Your task to perform on an android device: turn on translation in the chrome app Image 0: 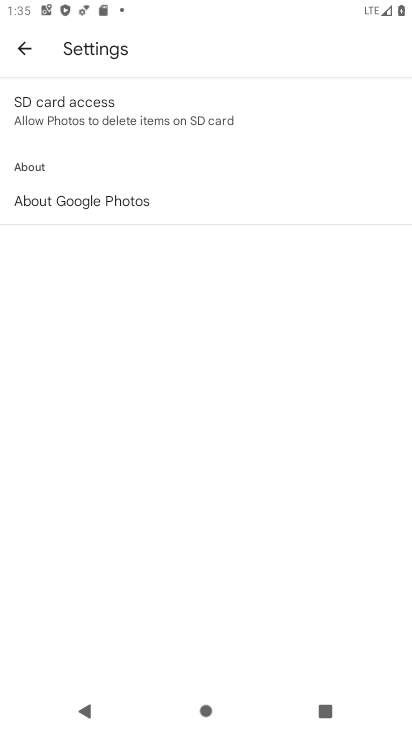
Step 0: press home button
Your task to perform on an android device: turn on translation in the chrome app Image 1: 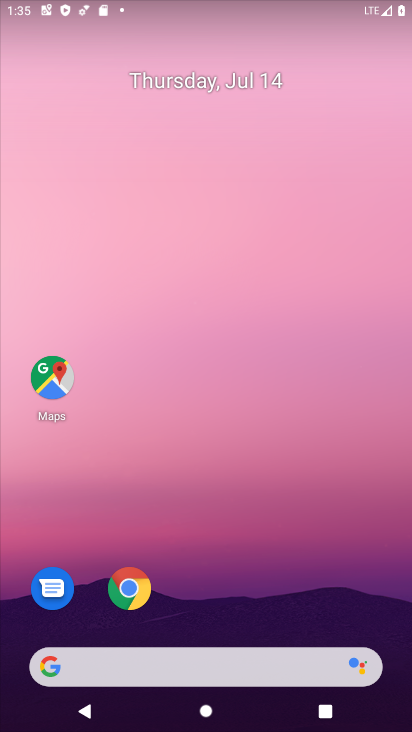
Step 1: click (130, 587)
Your task to perform on an android device: turn on translation in the chrome app Image 2: 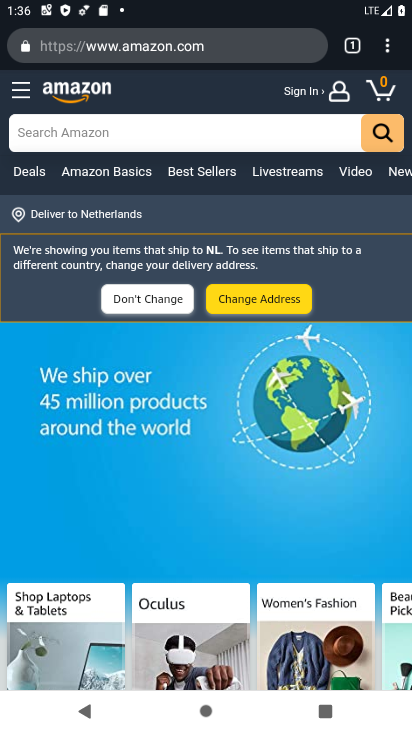
Step 2: click (388, 51)
Your task to perform on an android device: turn on translation in the chrome app Image 3: 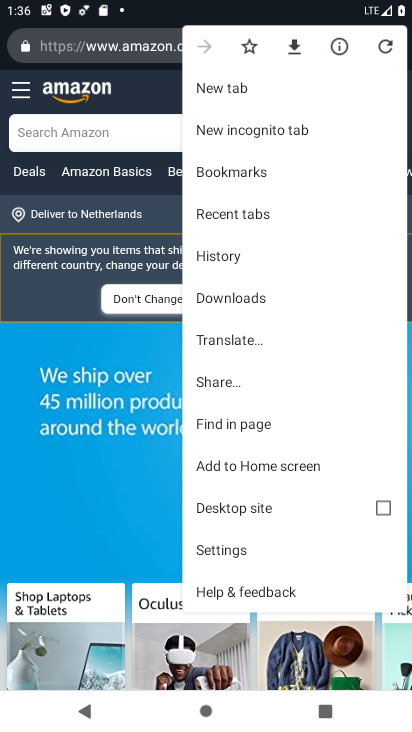
Step 3: click (262, 545)
Your task to perform on an android device: turn on translation in the chrome app Image 4: 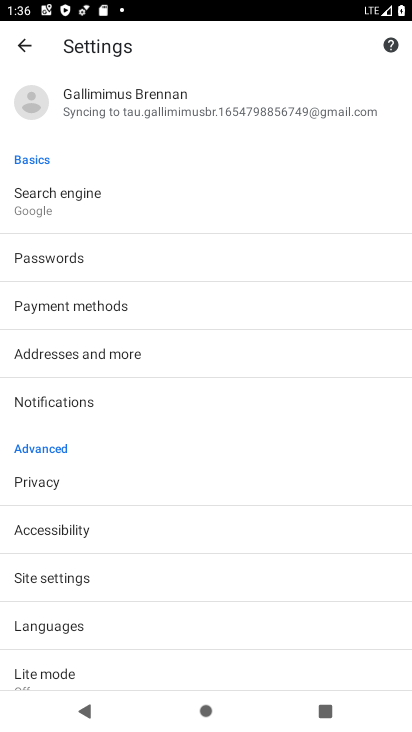
Step 4: click (94, 629)
Your task to perform on an android device: turn on translation in the chrome app Image 5: 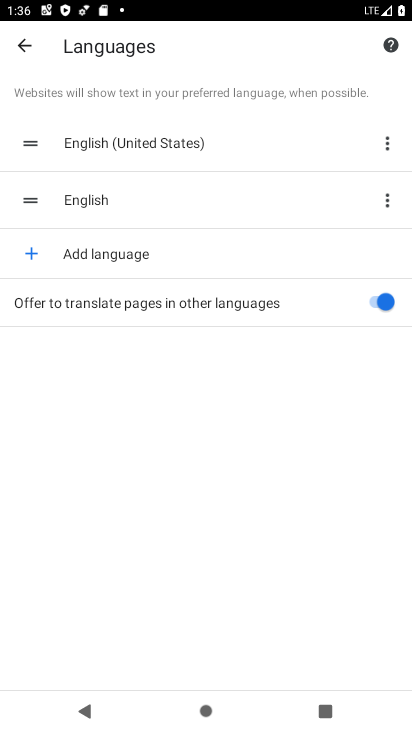
Step 5: task complete